Your task to perform on an android device: add a contact Image 0: 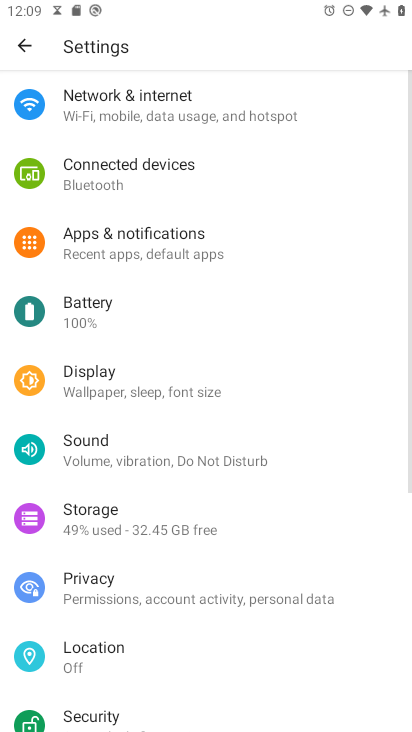
Step 0: press home button
Your task to perform on an android device: add a contact Image 1: 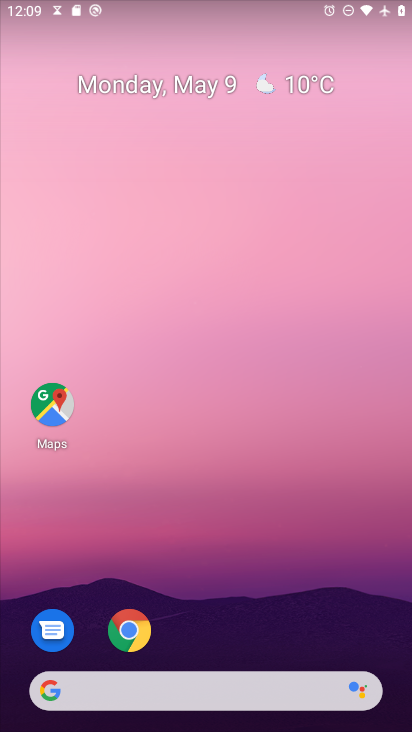
Step 1: drag from (187, 685) to (373, 62)
Your task to perform on an android device: add a contact Image 2: 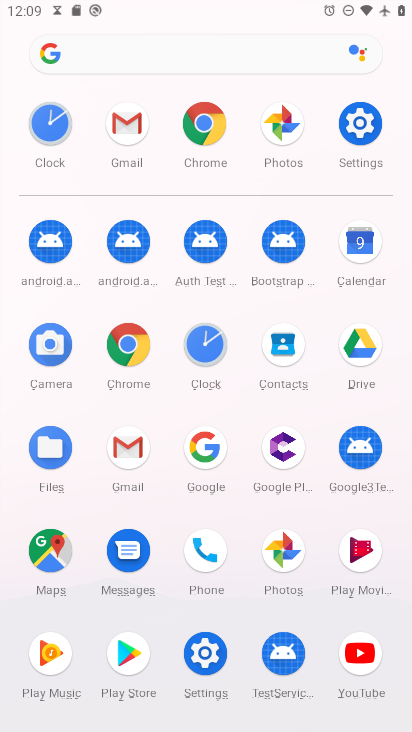
Step 2: click (288, 354)
Your task to perform on an android device: add a contact Image 3: 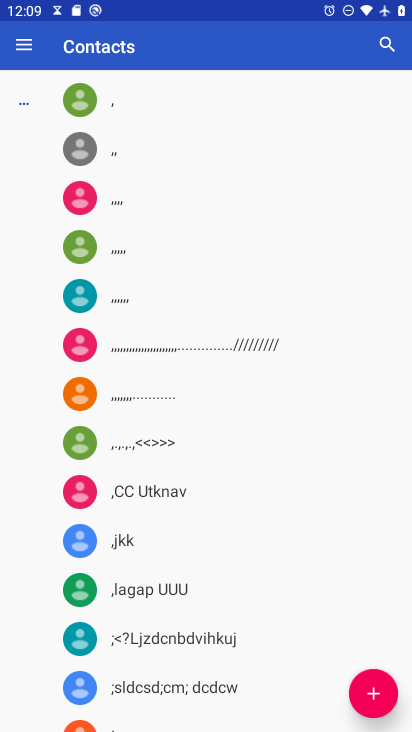
Step 3: click (367, 696)
Your task to perform on an android device: add a contact Image 4: 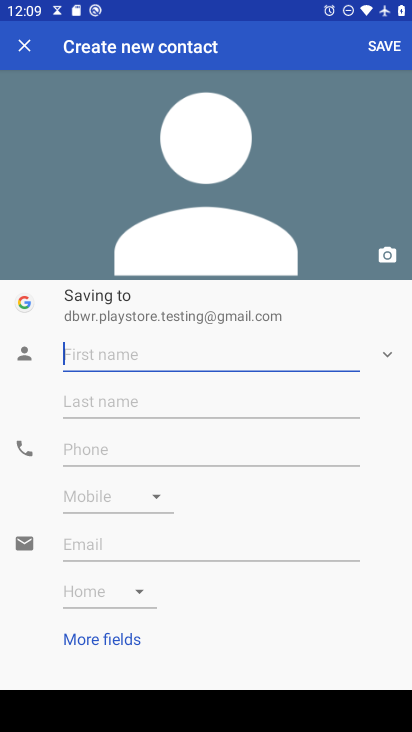
Step 4: type "atredfh"
Your task to perform on an android device: add a contact Image 5: 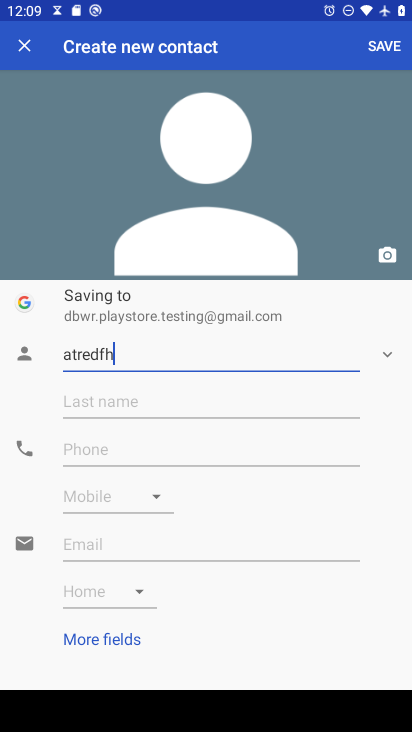
Step 5: click (90, 440)
Your task to perform on an android device: add a contact Image 6: 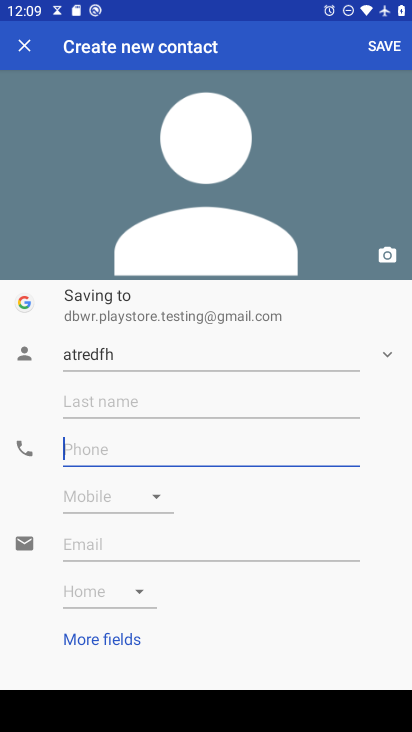
Step 6: type "563876"
Your task to perform on an android device: add a contact Image 7: 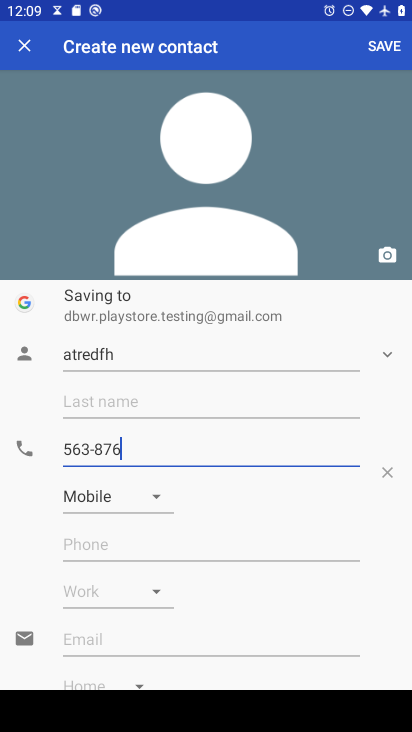
Step 7: click (385, 47)
Your task to perform on an android device: add a contact Image 8: 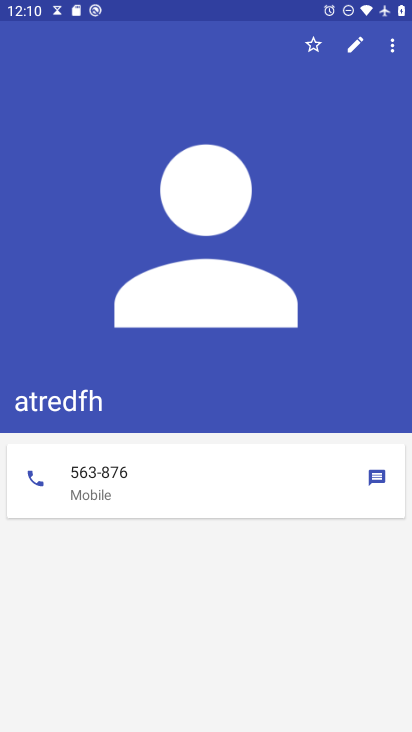
Step 8: task complete